Your task to perform on an android device: Open sound settings Image 0: 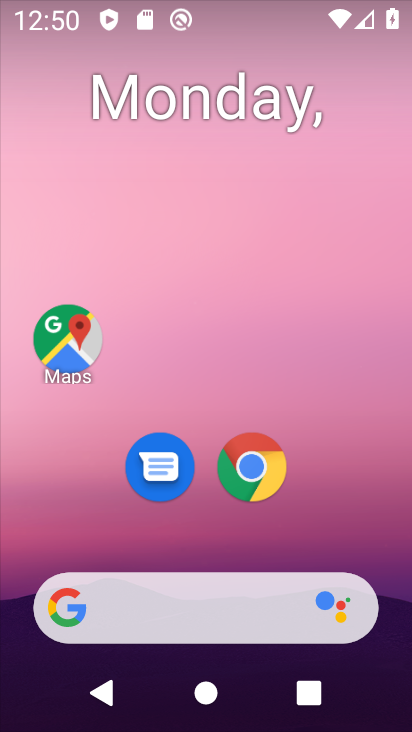
Step 0: drag from (303, 520) to (257, 39)
Your task to perform on an android device: Open sound settings Image 1: 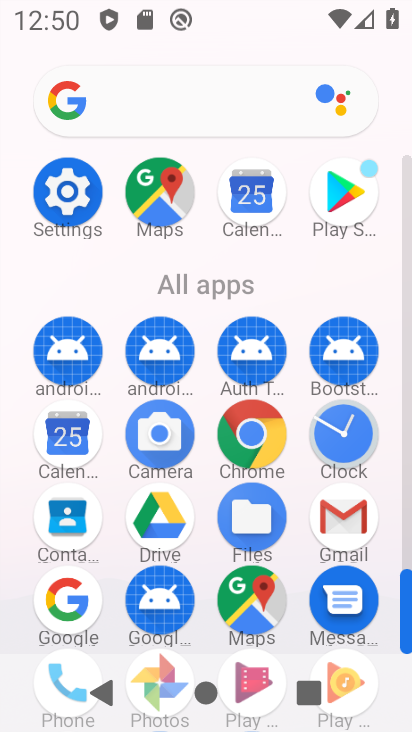
Step 1: click (69, 190)
Your task to perform on an android device: Open sound settings Image 2: 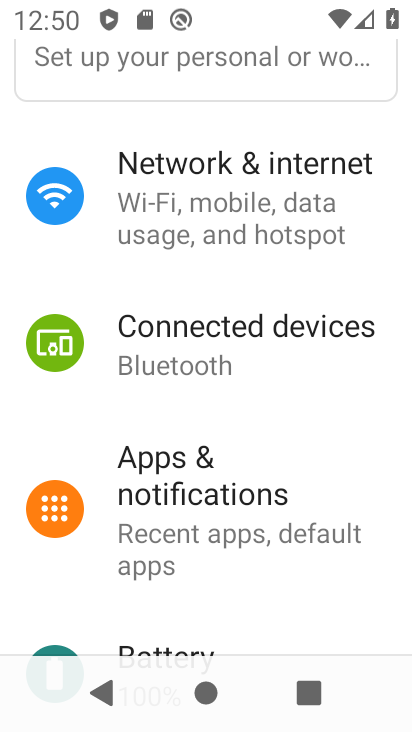
Step 2: drag from (204, 559) to (182, 355)
Your task to perform on an android device: Open sound settings Image 3: 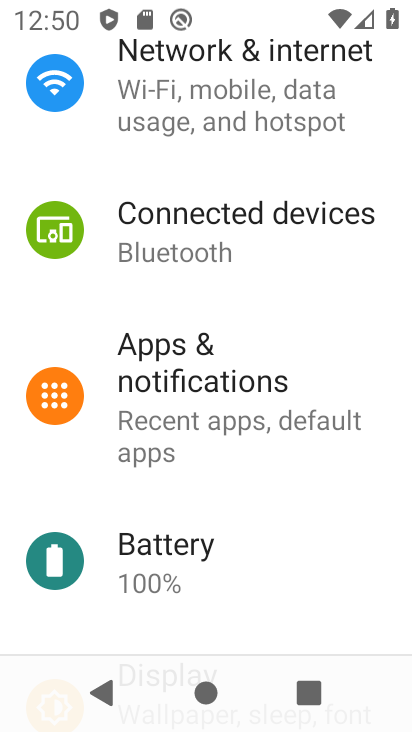
Step 3: drag from (239, 571) to (212, 458)
Your task to perform on an android device: Open sound settings Image 4: 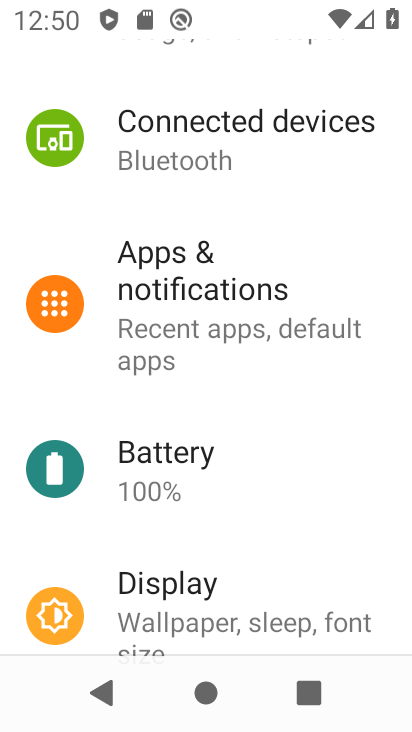
Step 4: drag from (207, 554) to (197, 464)
Your task to perform on an android device: Open sound settings Image 5: 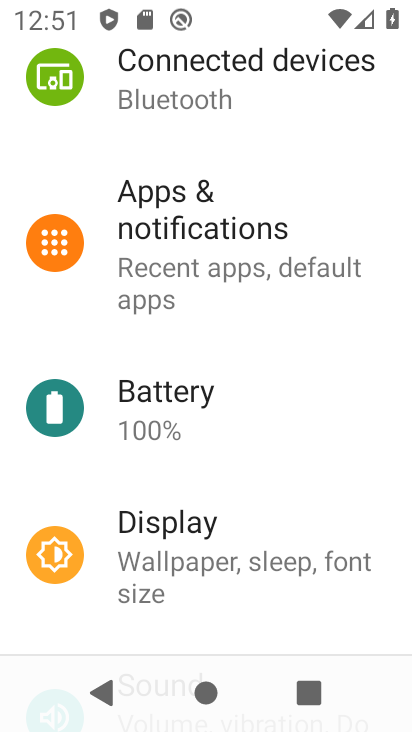
Step 5: drag from (218, 573) to (205, 442)
Your task to perform on an android device: Open sound settings Image 6: 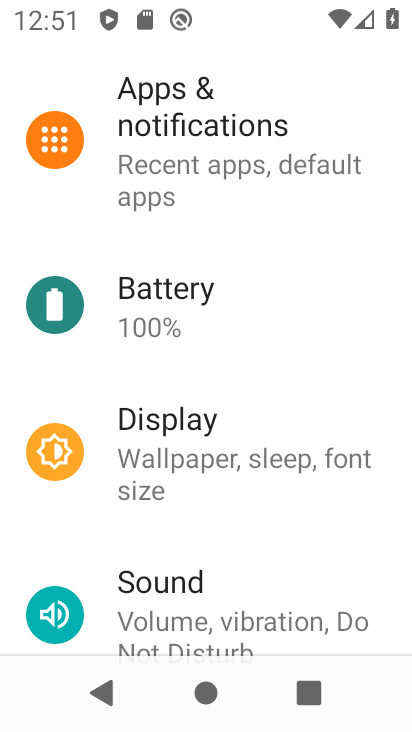
Step 6: click (228, 603)
Your task to perform on an android device: Open sound settings Image 7: 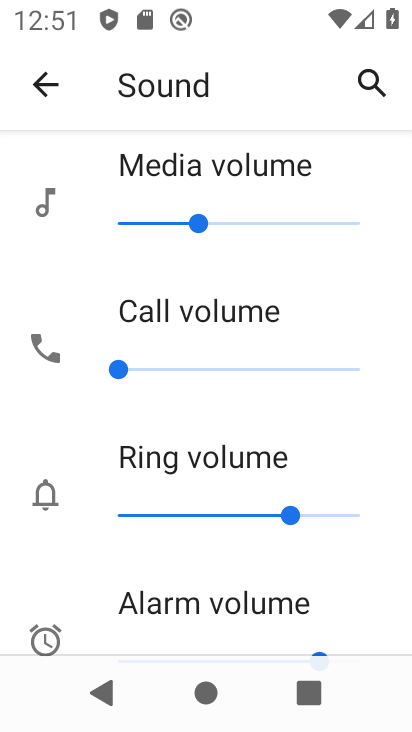
Step 7: task complete